Your task to perform on an android device: uninstall "Venmo" Image 0: 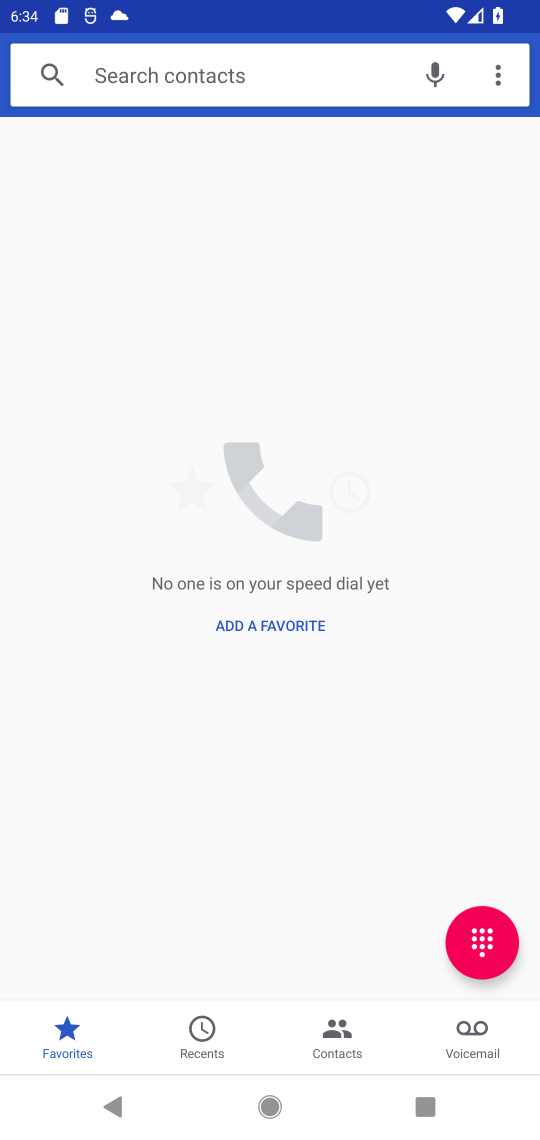
Step 0: press home button
Your task to perform on an android device: uninstall "Venmo" Image 1: 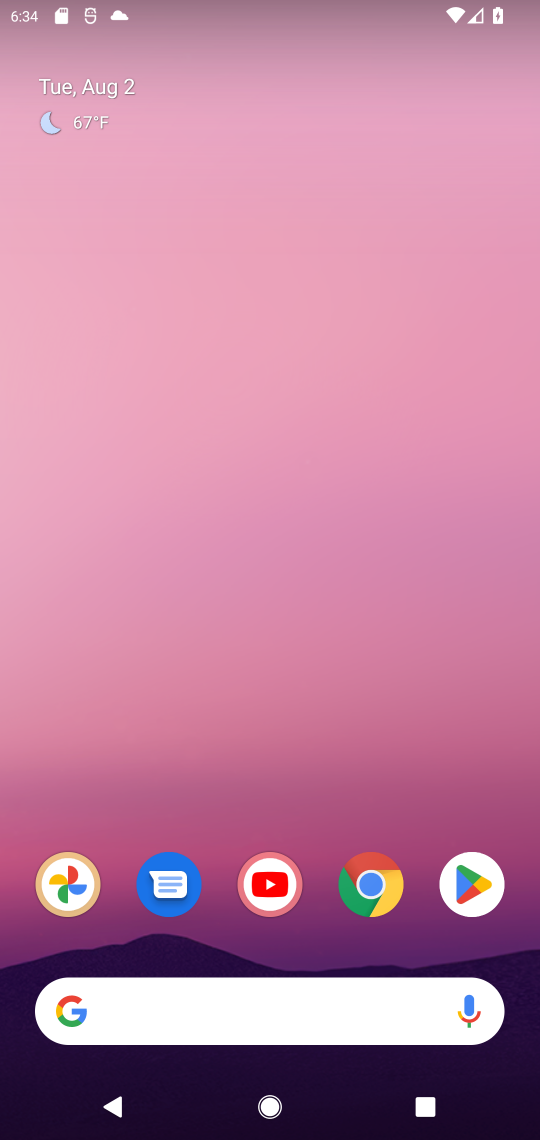
Step 1: click (461, 862)
Your task to perform on an android device: uninstall "Venmo" Image 2: 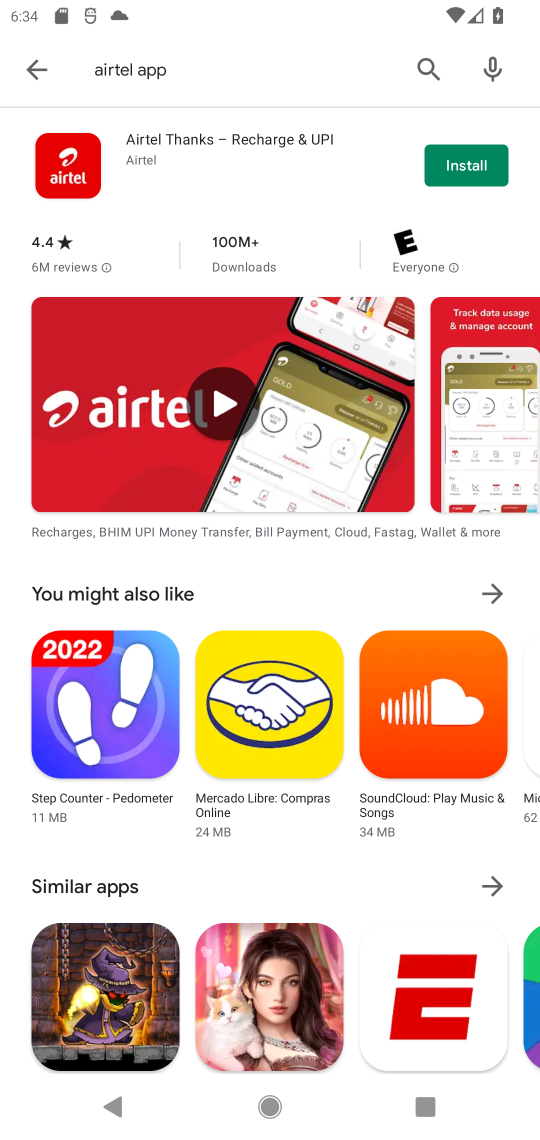
Step 2: click (434, 58)
Your task to perform on an android device: uninstall "Venmo" Image 3: 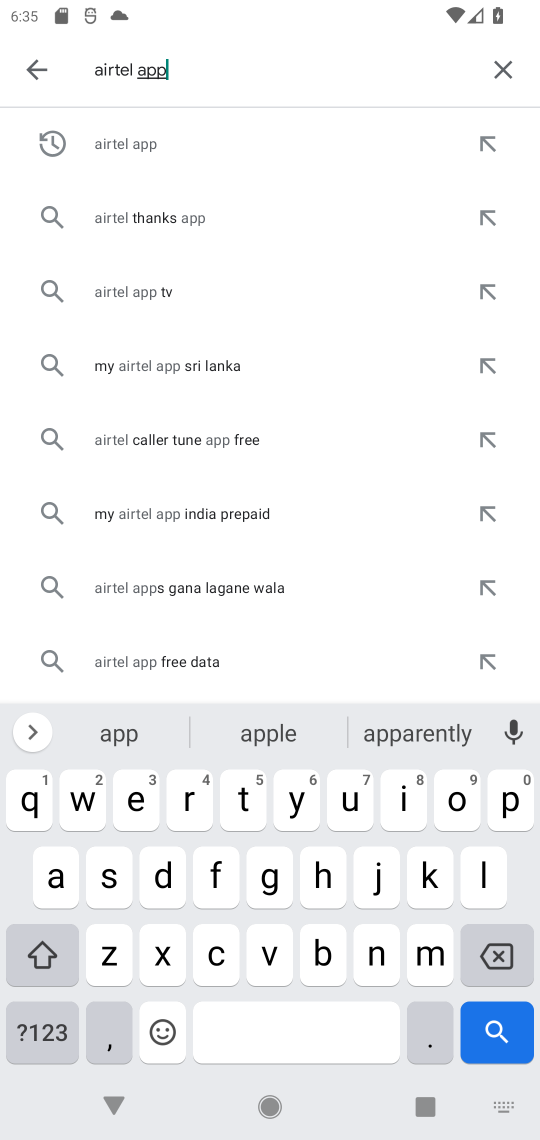
Step 3: click (500, 71)
Your task to perform on an android device: uninstall "Venmo" Image 4: 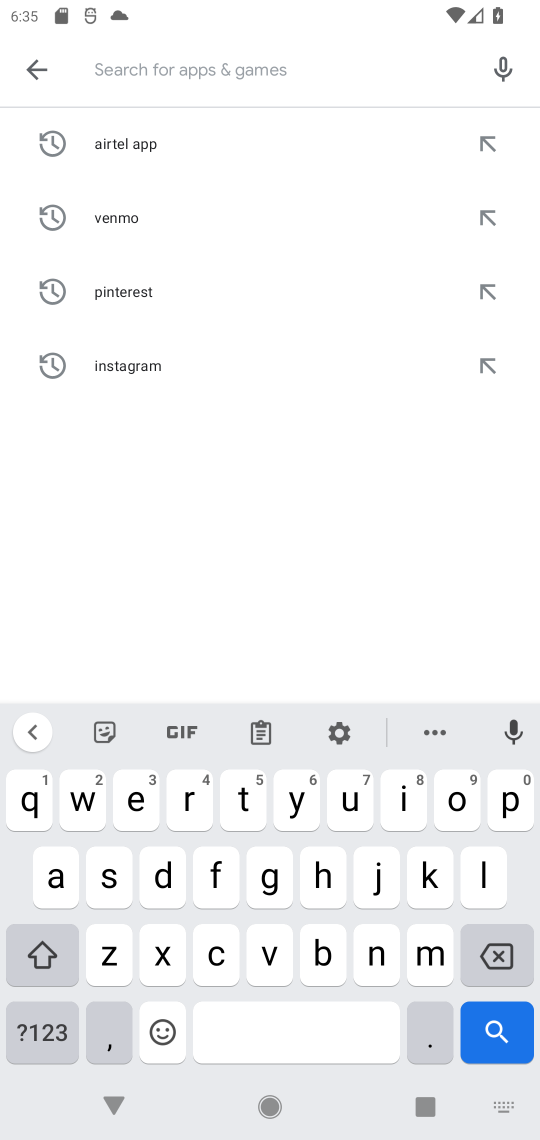
Step 4: click (140, 213)
Your task to perform on an android device: uninstall "Venmo" Image 5: 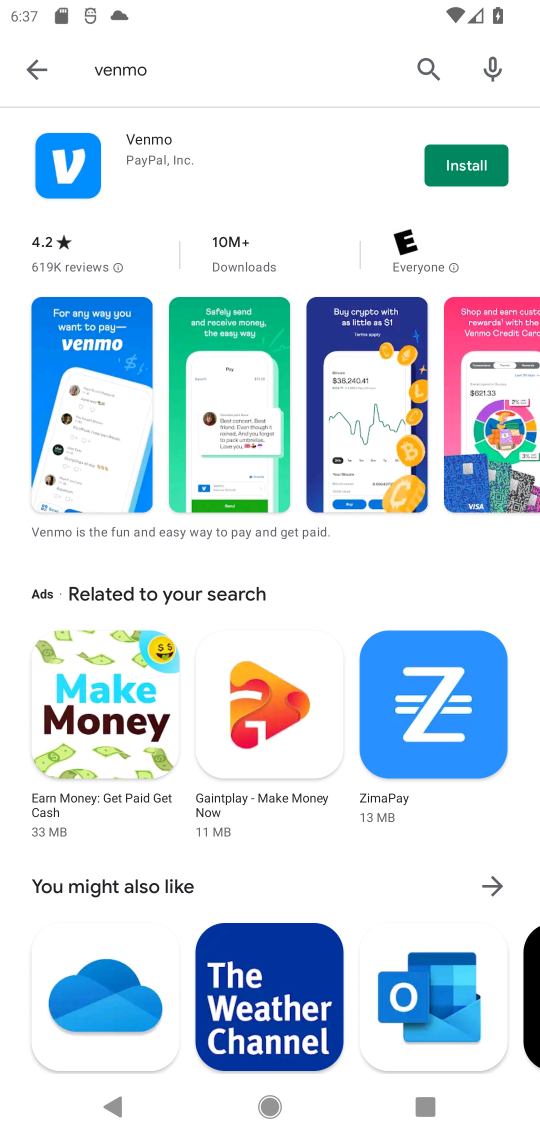
Step 5: task complete